Your task to perform on an android device: check out phone information Image 0: 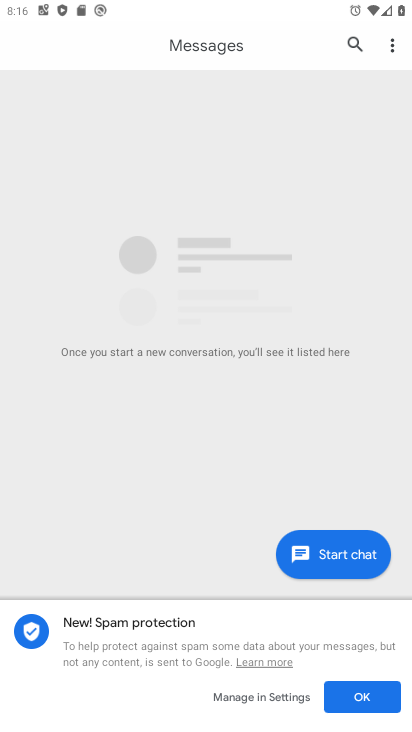
Step 0: press home button
Your task to perform on an android device: check out phone information Image 1: 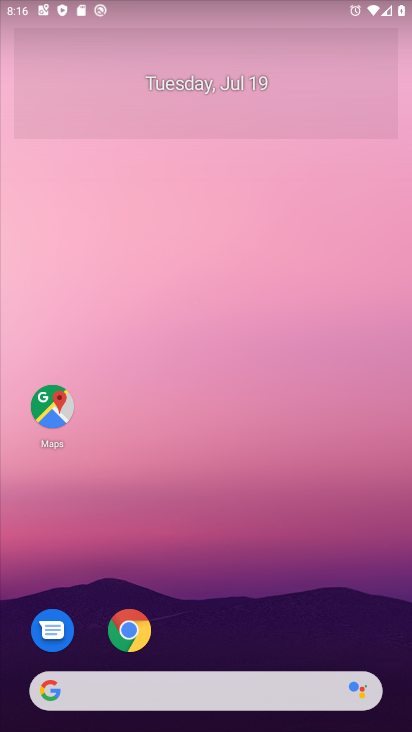
Step 1: drag from (313, 621) to (316, 87)
Your task to perform on an android device: check out phone information Image 2: 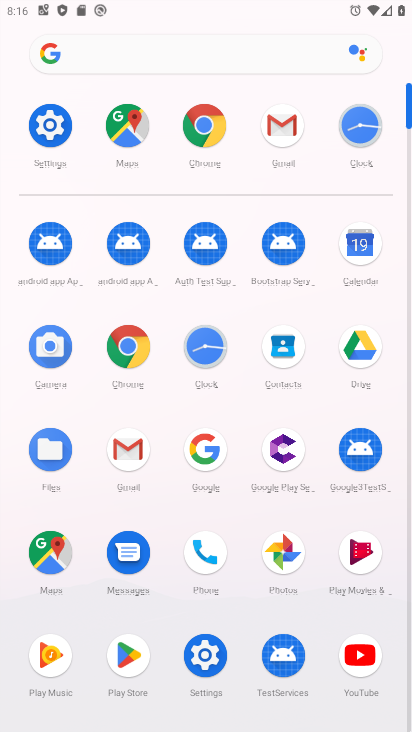
Step 2: click (206, 552)
Your task to perform on an android device: check out phone information Image 3: 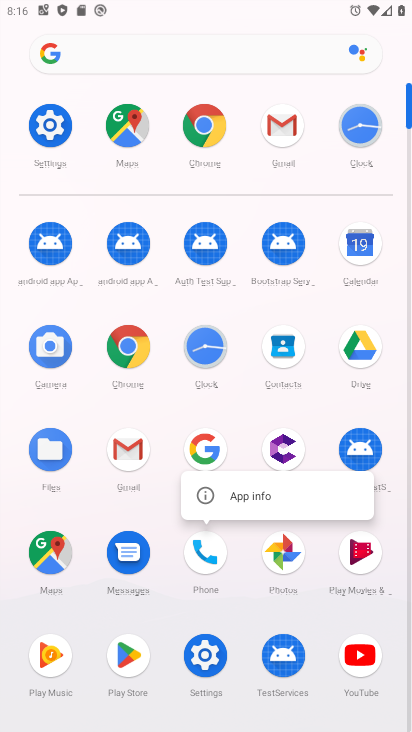
Step 3: click (254, 496)
Your task to perform on an android device: check out phone information Image 4: 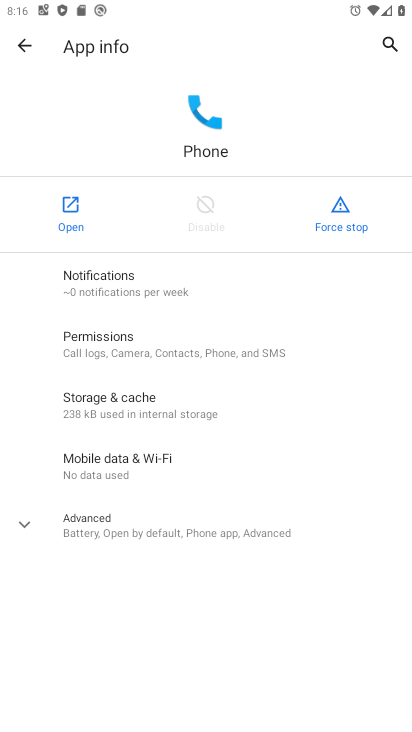
Step 4: task complete